Your task to perform on an android device: Show me the alarms in the clock app Image 0: 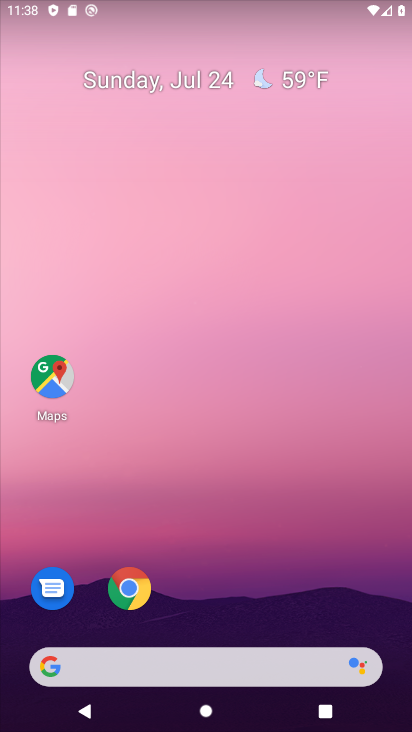
Step 0: drag from (336, 608) to (124, 37)
Your task to perform on an android device: Show me the alarms in the clock app Image 1: 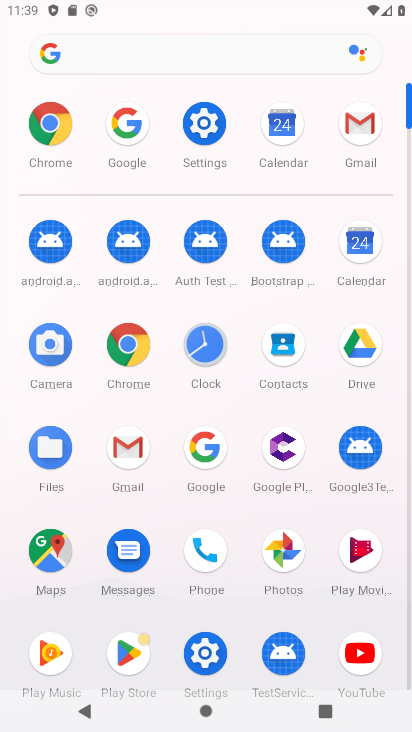
Step 1: click (206, 347)
Your task to perform on an android device: Show me the alarms in the clock app Image 2: 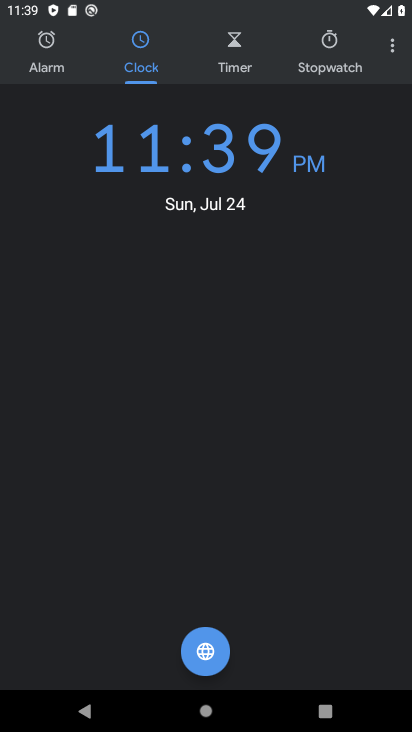
Step 2: click (33, 50)
Your task to perform on an android device: Show me the alarms in the clock app Image 3: 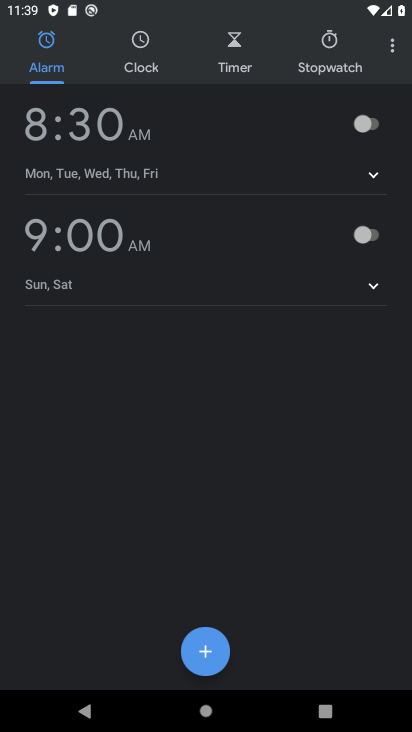
Step 3: task complete